Your task to perform on an android device: Open Google Chrome Image 0: 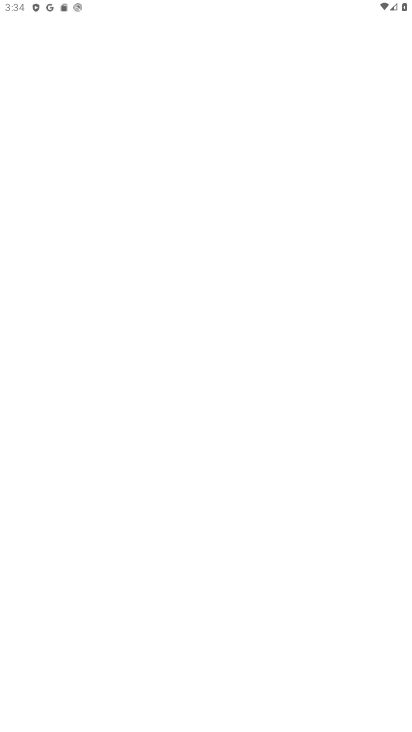
Step 0: press home button
Your task to perform on an android device: Open Google Chrome Image 1: 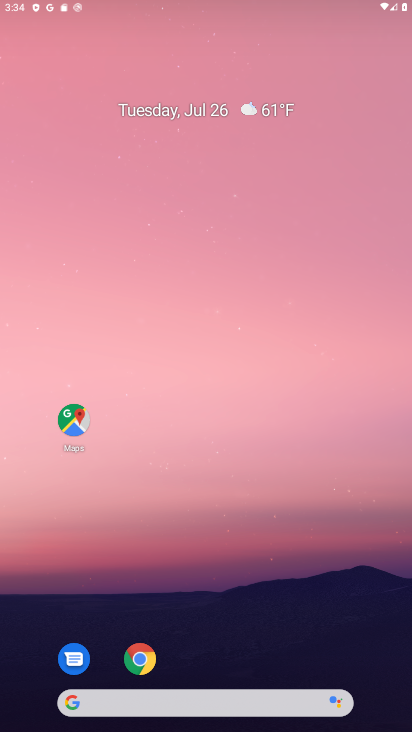
Step 1: drag from (289, 645) to (256, 75)
Your task to perform on an android device: Open Google Chrome Image 2: 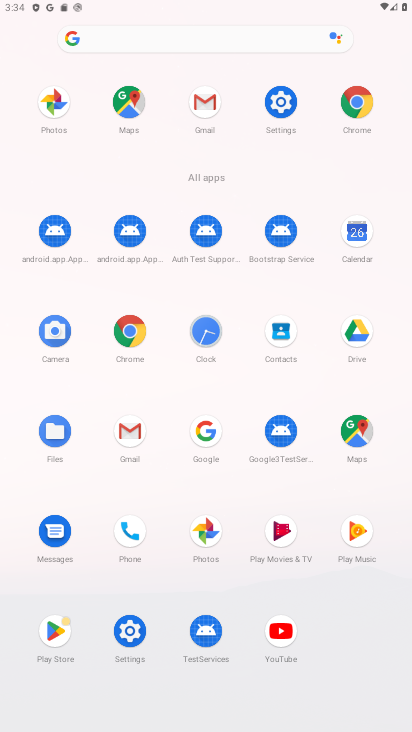
Step 2: click (355, 99)
Your task to perform on an android device: Open Google Chrome Image 3: 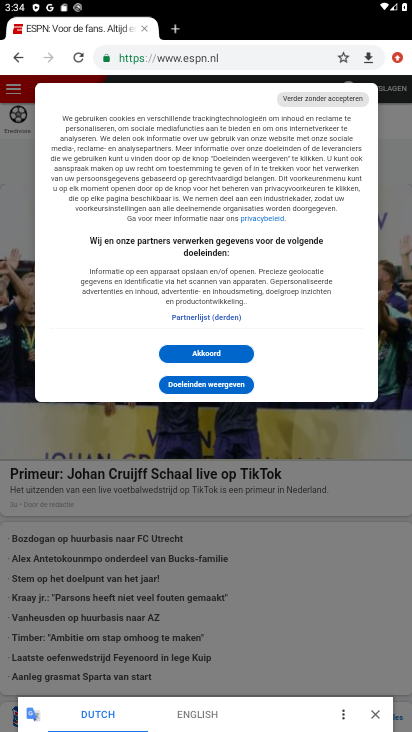
Step 3: task complete